Your task to perform on an android device: When is my next appointment? Image 0: 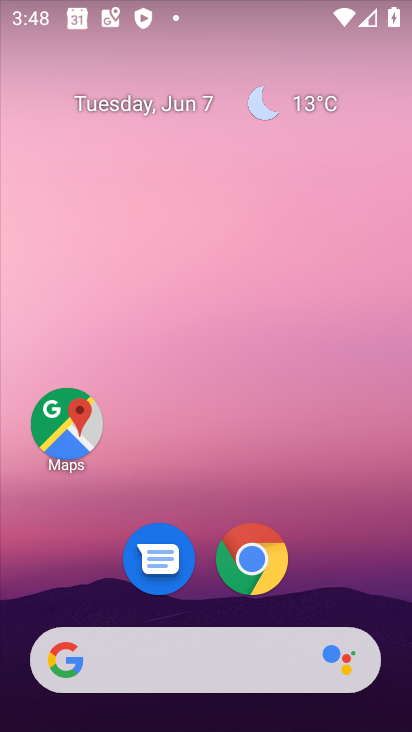
Step 0: drag from (349, 553) to (251, 158)
Your task to perform on an android device: When is my next appointment? Image 1: 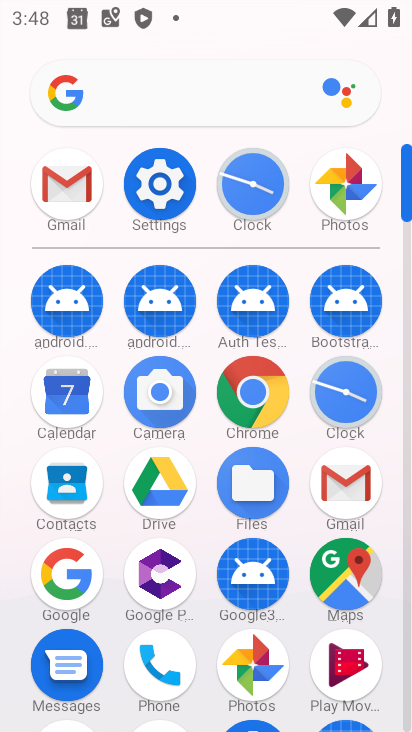
Step 1: click (67, 396)
Your task to perform on an android device: When is my next appointment? Image 2: 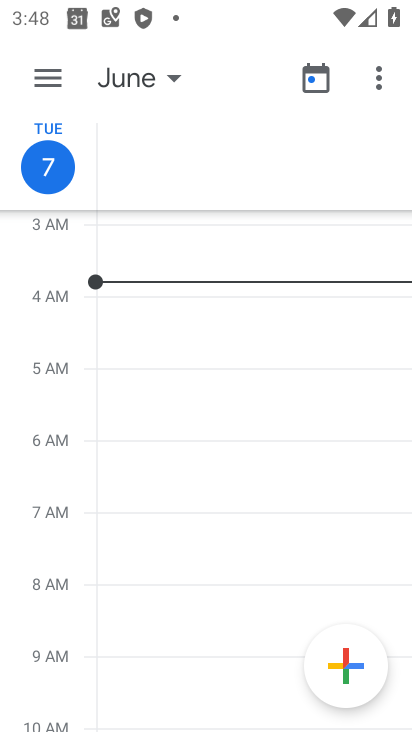
Step 2: click (320, 79)
Your task to perform on an android device: When is my next appointment? Image 3: 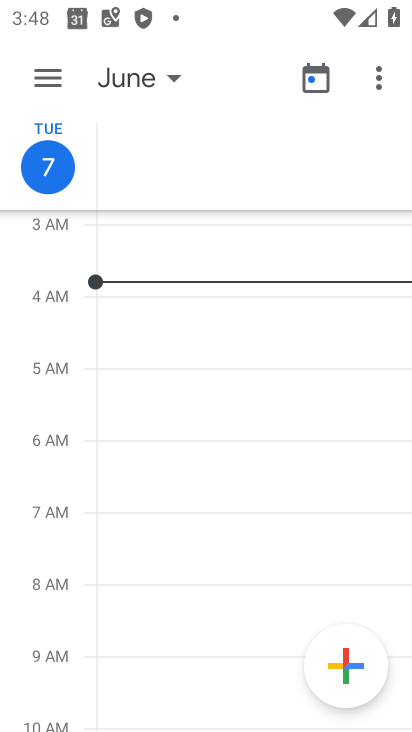
Step 3: click (172, 76)
Your task to perform on an android device: When is my next appointment? Image 4: 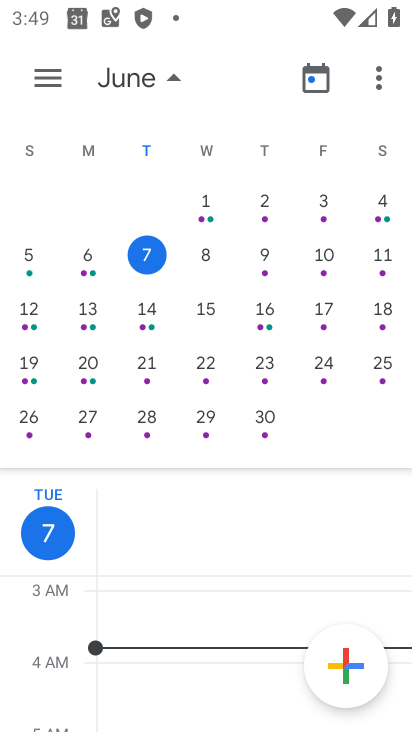
Step 4: click (271, 261)
Your task to perform on an android device: When is my next appointment? Image 5: 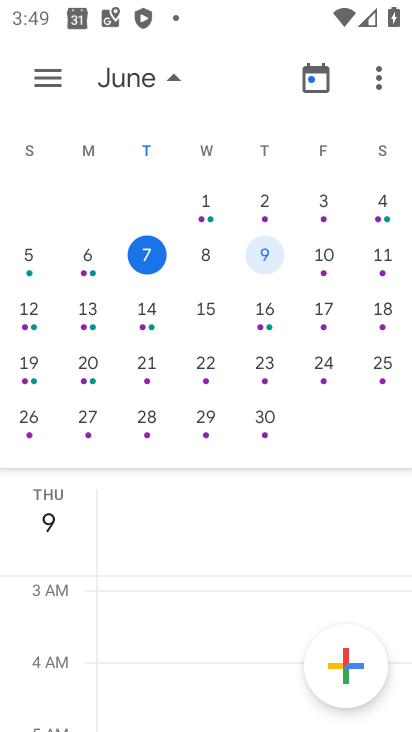
Step 5: click (38, 73)
Your task to perform on an android device: When is my next appointment? Image 6: 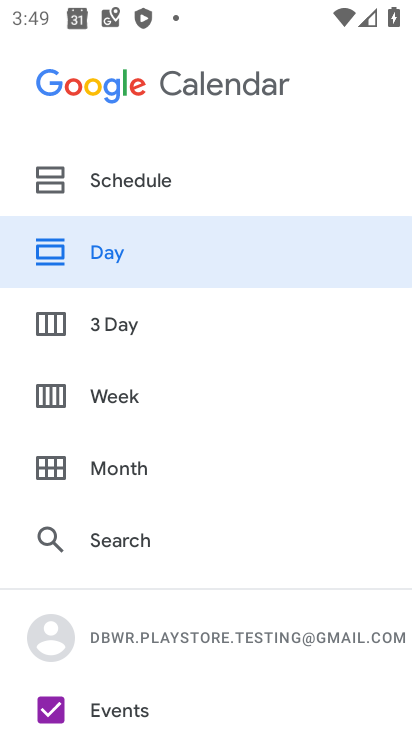
Step 6: click (109, 173)
Your task to perform on an android device: When is my next appointment? Image 7: 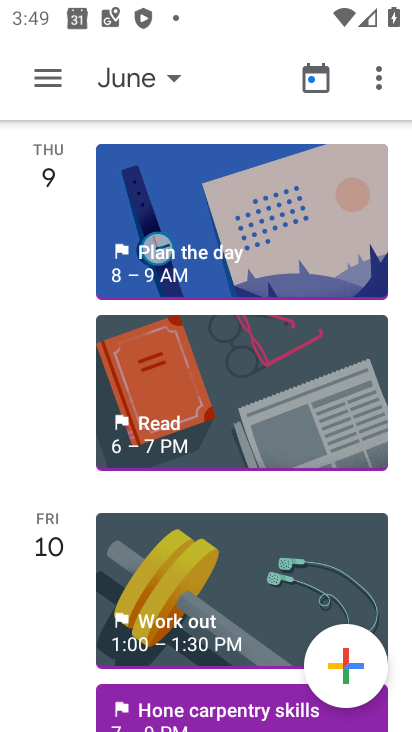
Step 7: task complete